Your task to perform on an android device: Open Google Chrome Image 0: 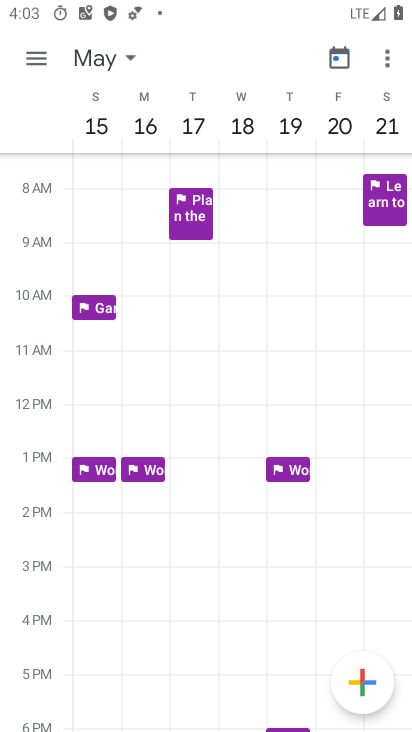
Step 0: press home button
Your task to perform on an android device: Open Google Chrome Image 1: 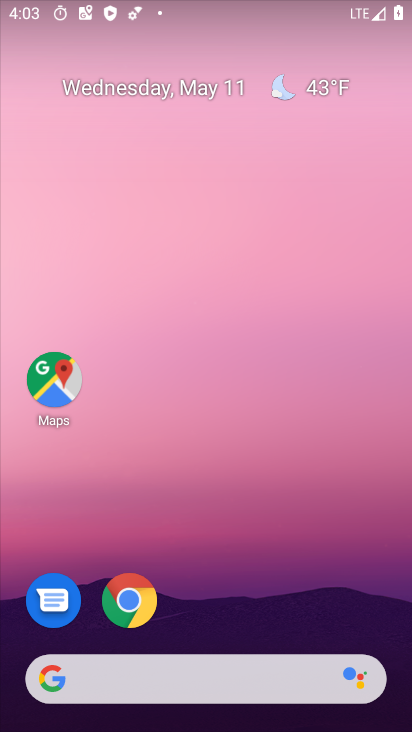
Step 1: click (137, 610)
Your task to perform on an android device: Open Google Chrome Image 2: 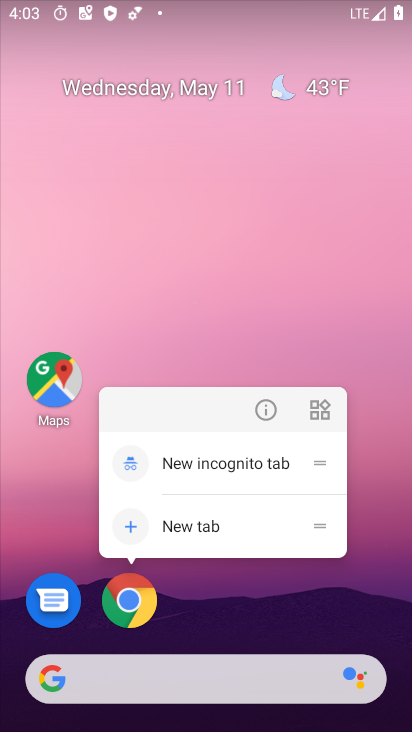
Step 2: click (131, 611)
Your task to perform on an android device: Open Google Chrome Image 3: 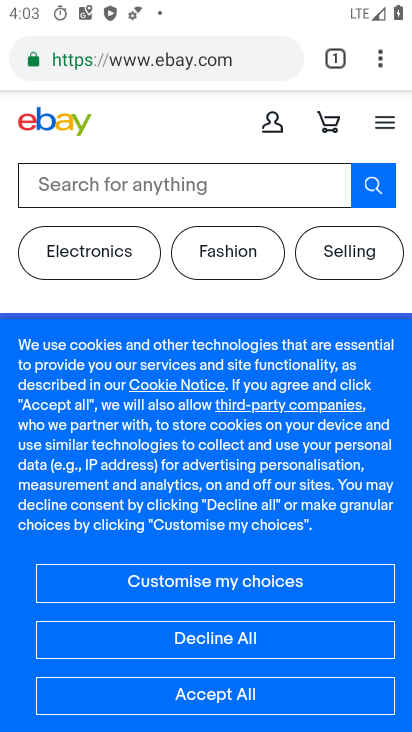
Step 3: task complete